Your task to perform on an android device: Go to privacy settings Image 0: 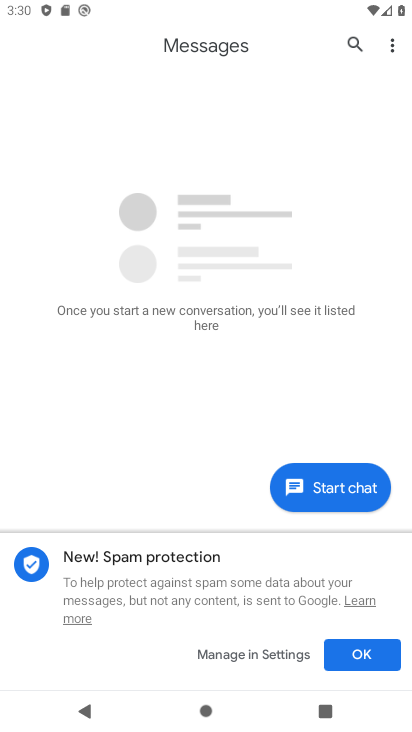
Step 0: press back button
Your task to perform on an android device: Go to privacy settings Image 1: 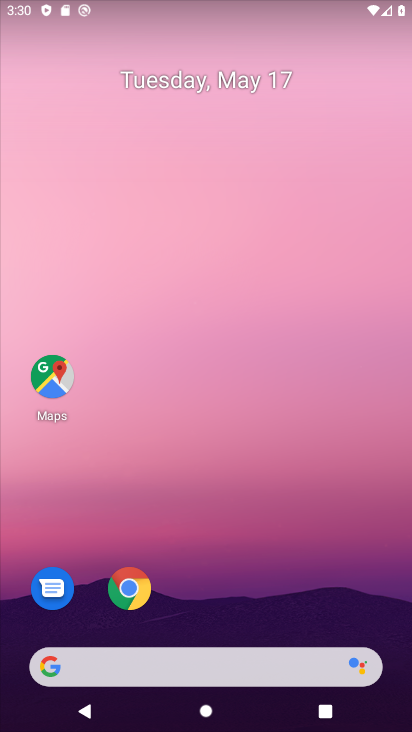
Step 1: drag from (274, 603) to (261, 151)
Your task to perform on an android device: Go to privacy settings Image 2: 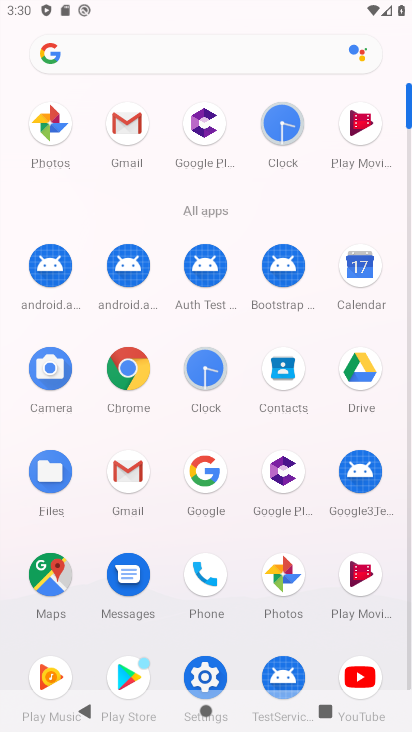
Step 2: drag from (244, 640) to (227, 370)
Your task to perform on an android device: Go to privacy settings Image 3: 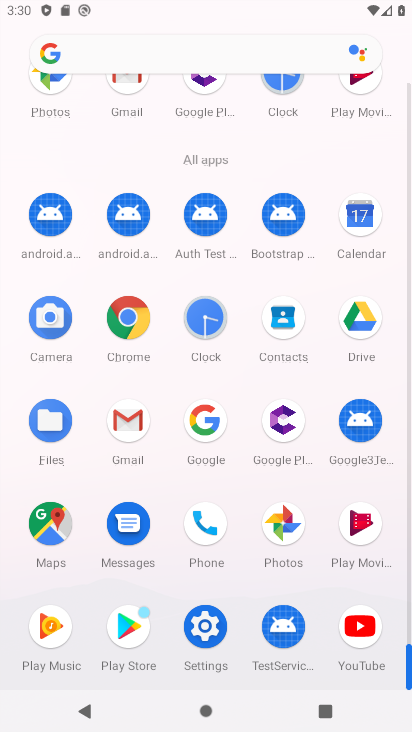
Step 3: click (207, 624)
Your task to perform on an android device: Go to privacy settings Image 4: 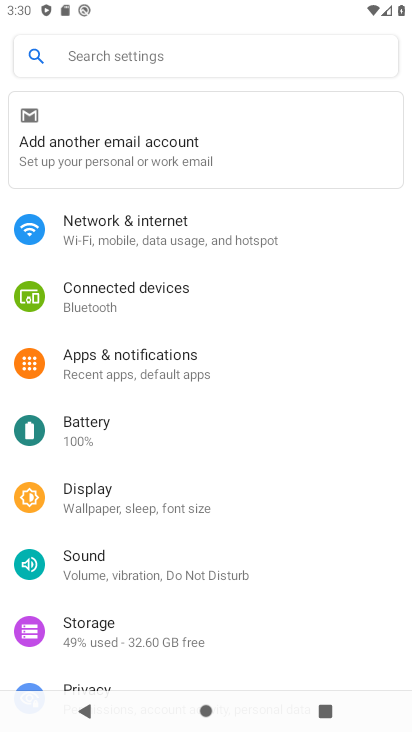
Step 4: drag from (121, 471) to (149, 399)
Your task to perform on an android device: Go to privacy settings Image 5: 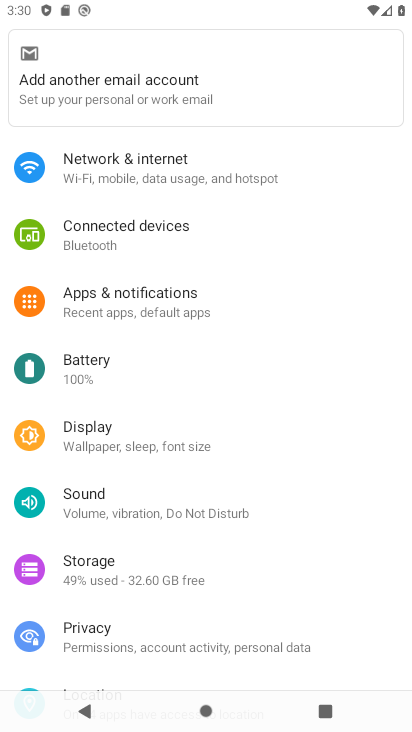
Step 5: drag from (120, 481) to (150, 381)
Your task to perform on an android device: Go to privacy settings Image 6: 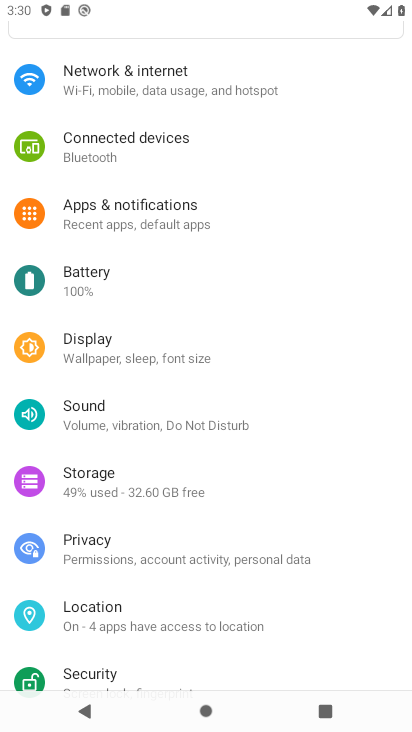
Step 6: drag from (141, 515) to (176, 433)
Your task to perform on an android device: Go to privacy settings Image 7: 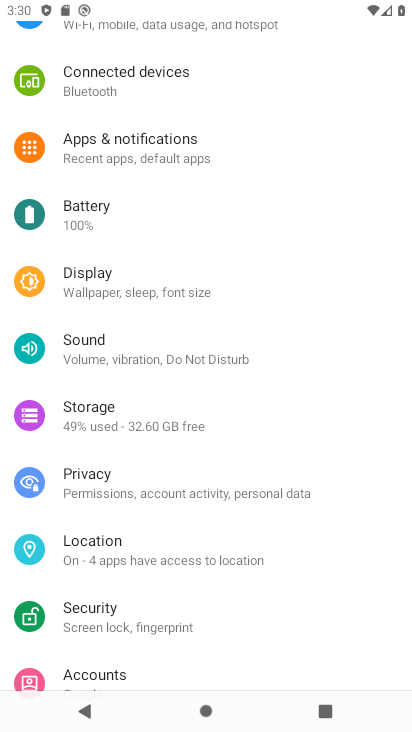
Step 7: click (123, 495)
Your task to perform on an android device: Go to privacy settings Image 8: 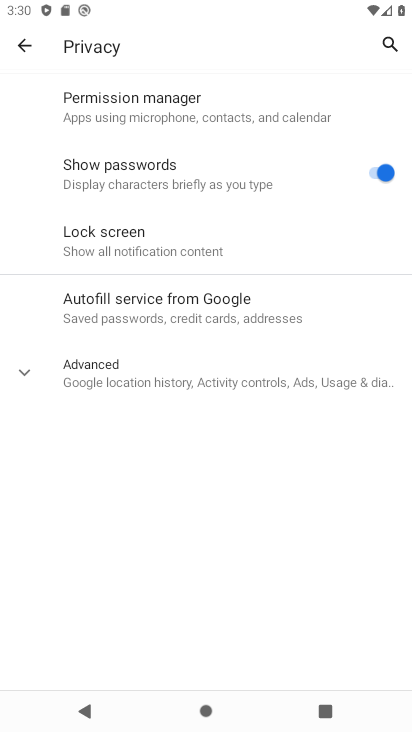
Step 8: task complete